Your task to perform on an android device: Open sound settings Image 0: 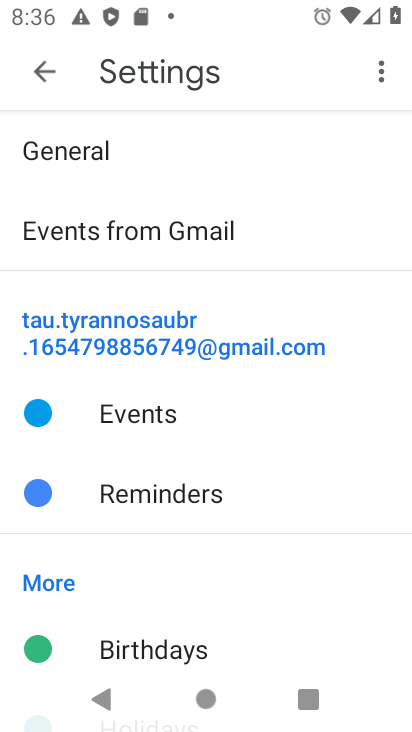
Step 0: press home button
Your task to perform on an android device: Open sound settings Image 1: 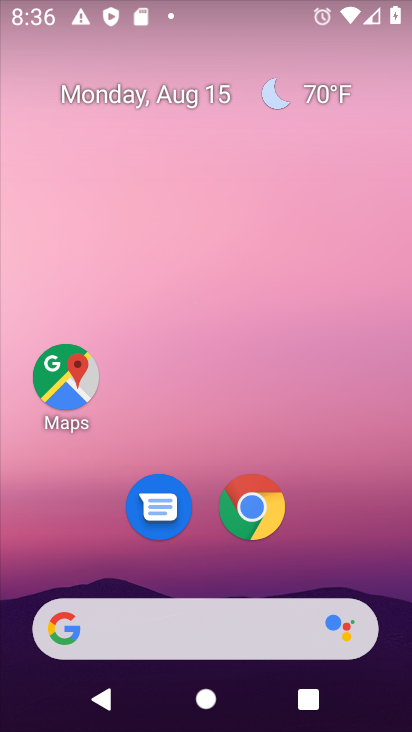
Step 1: drag from (238, 645) to (347, 83)
Your task to perform on an android device: Open sound settings Image 2: 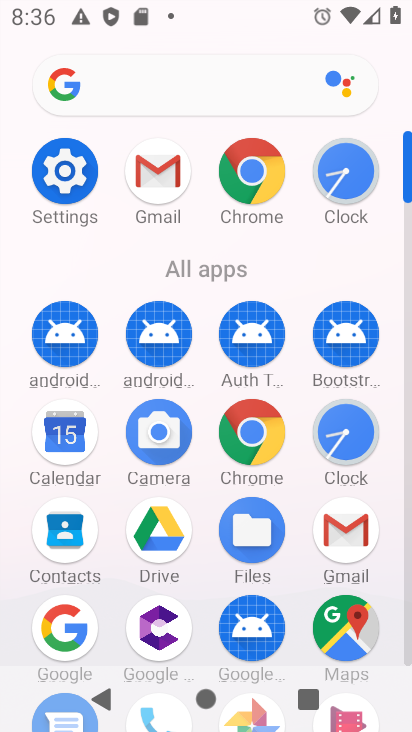
Step 2: click (61, 162)
Your task to perform on an android device: Open sound settings Image 3: 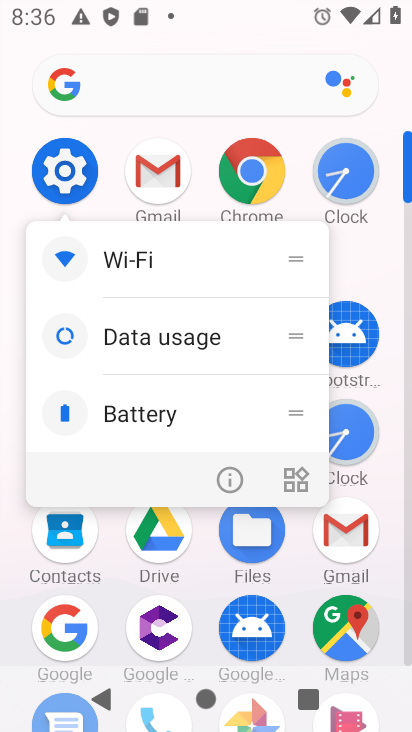
Step 3: click (61, 162)
Your task to perform on an android device: Open sound settings Image 4: 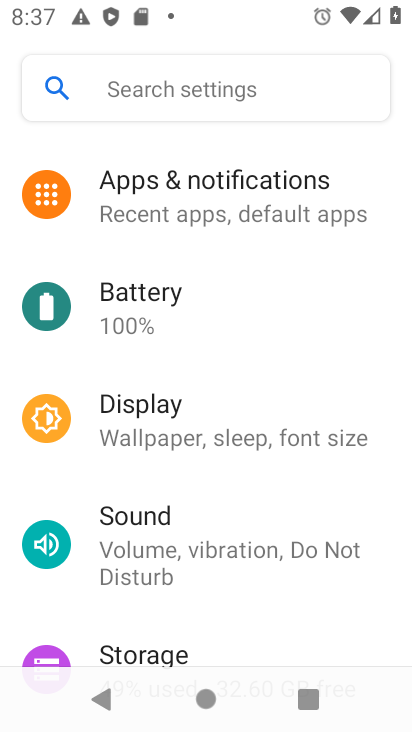
Step 4: click (122, 536)
Your task to perform on an android device: Open sound settings Image 5: 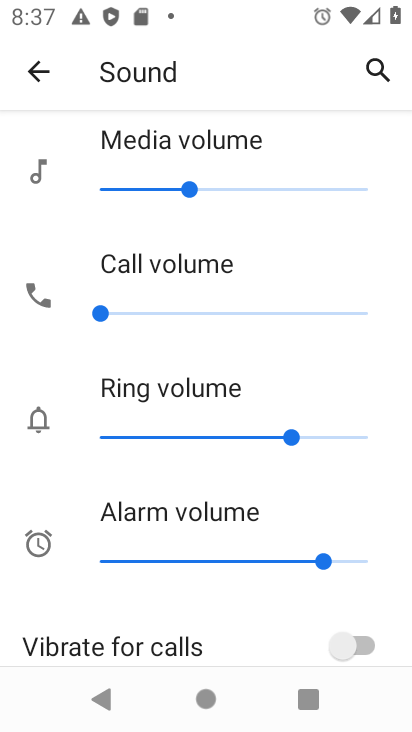
Step 5: task complete